Your task to perform on an android device: make emails show in primary in the gmail app Image 0: 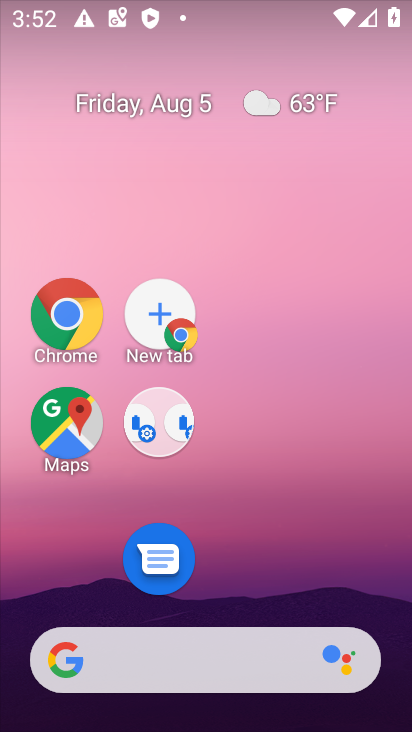
Step 0: click (313, 276)
Your task to perform on an android device: make emails show in primary in the gmail app Image 1: 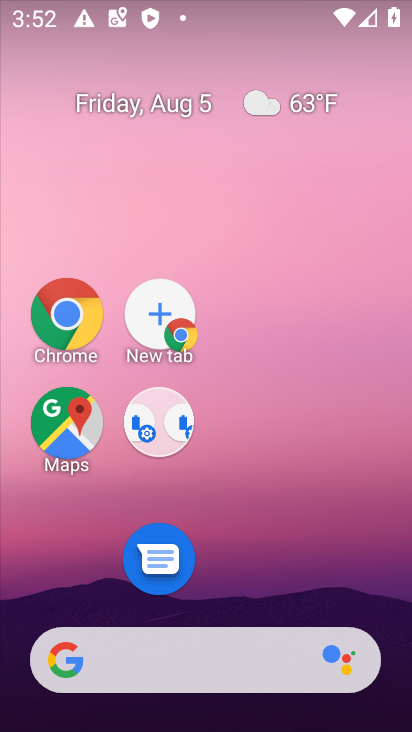
Step 1: click (209, 87)
Your task to perform on an android device: make emails show in primary in the gmail app Image 2: 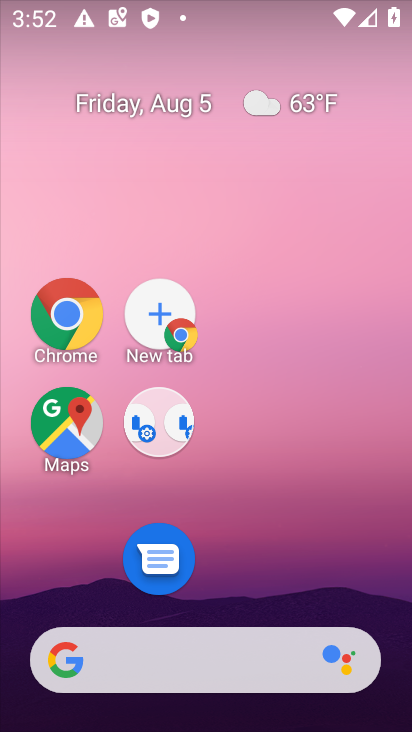
Step 2: drag from (203, 84) to (154, 18)
Your task to perform on an android device: make emails show in primary in the gmail app Image 3: 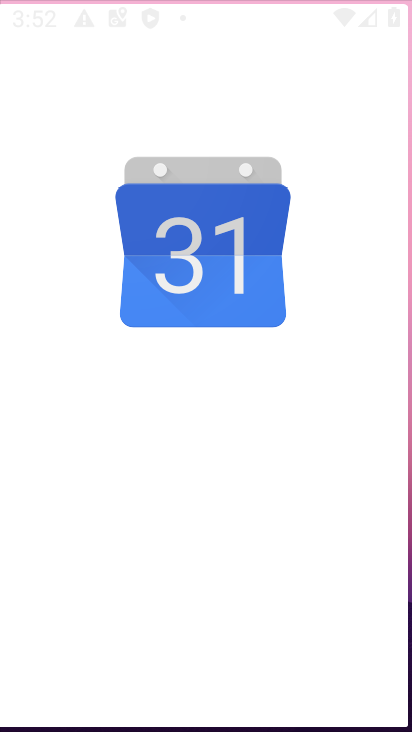
Step 3: drag from (253, 409) to (160, 120)
Your task to perform on an android device: make emails show in primary in the gmail app Image 4: 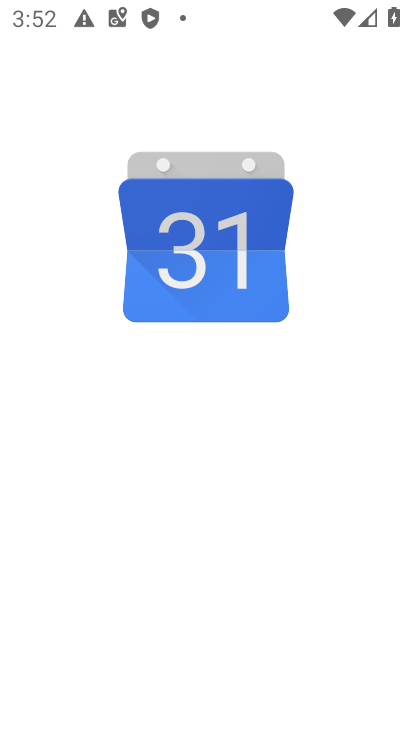
Step 4: click (156, 120)
Your task to perform on an android device: make emails show in primary in the gmail app Image 5: 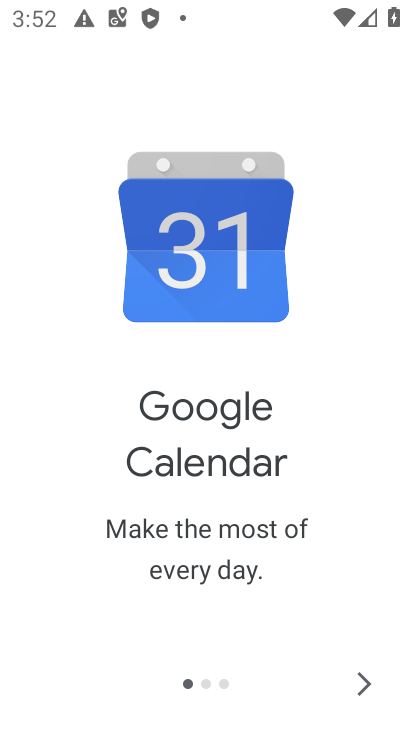
Step 5: press back button
Your task to perform on an android device: make emails show in primary in the gmail app Image 6: 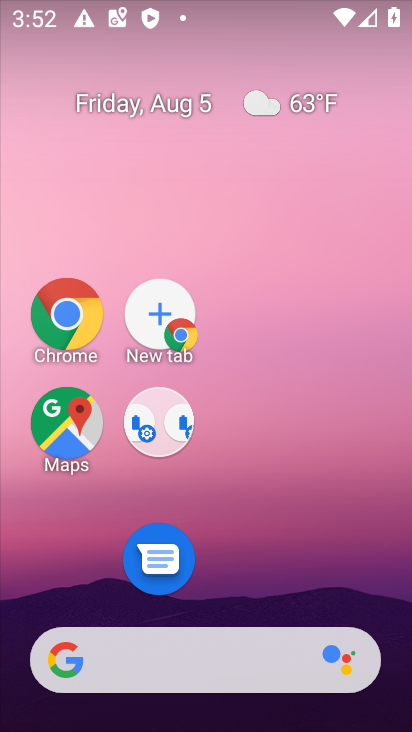
Step 6: drag from (247, 522) to (228, 64)
Your task to perform on an android device: make emails show in primary in the gmail app Image 7: 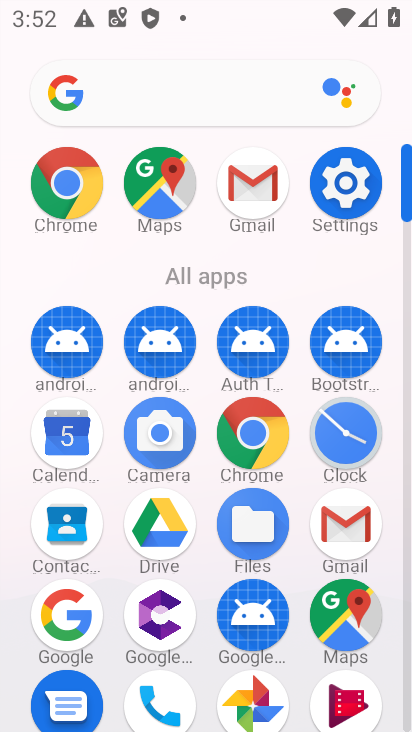
Step 7: click (256, 79)
Your task to perform on an android device: make emails show in primary in the gmail app Image 8: 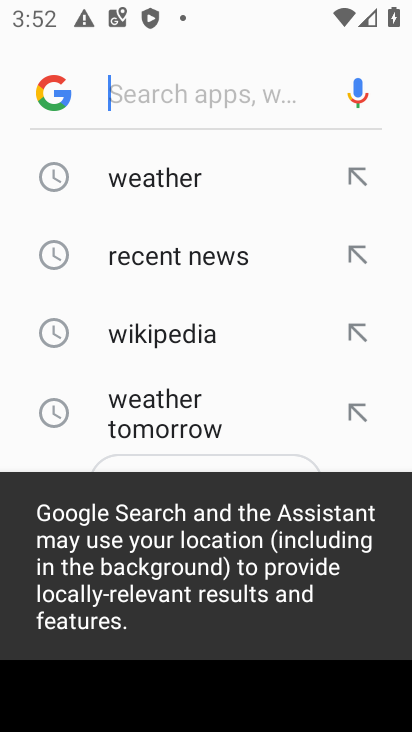
Step 8: press back button
Your task to perform on an android device: make emails show in primary in the gmail app Image 9: 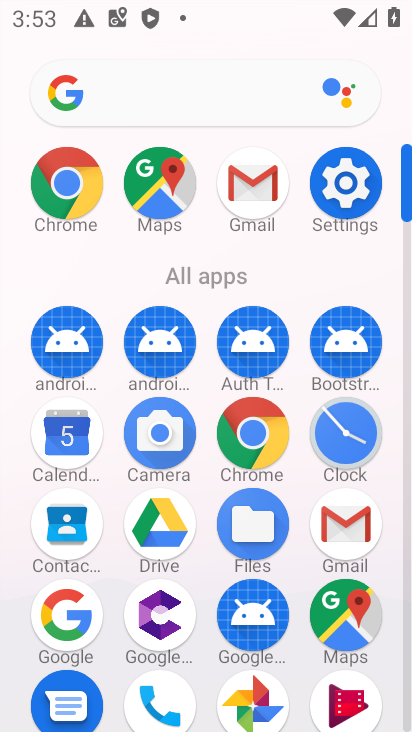
Step 9: click (347, 528)
Your task to perform on an android device: make emails show in primary in the gmail app Image 10: 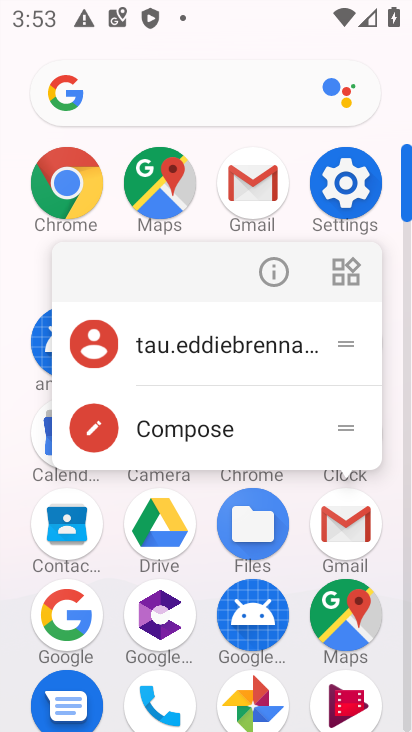
Step 10: click (162, 426)
Your task to perform on an android device: make emails show in primary in the gmail app Image 11: 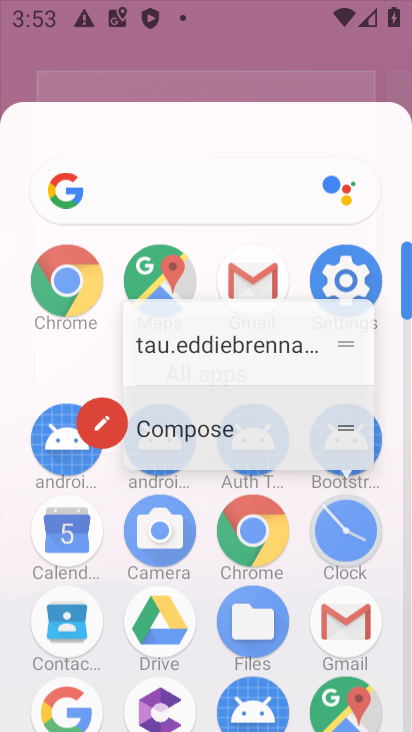
Step 11: click (162, 426)
Your task to perform on an android device: make emails show in primary in the gmail app Image 12: 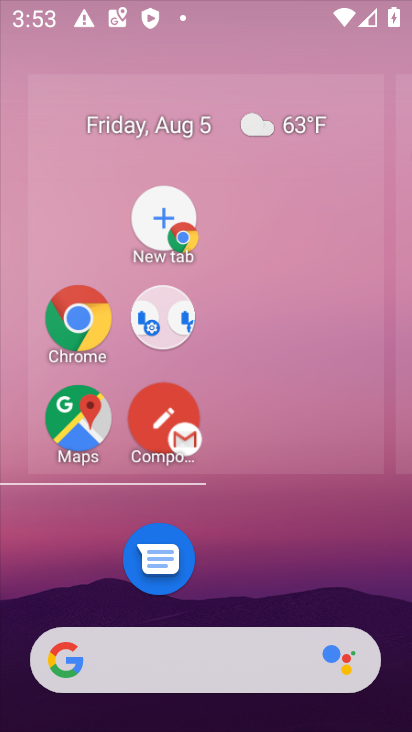
Step 12: click (162, 427)
Your task to perform on an android device: make emails show in primary in the gmail app Image 13: 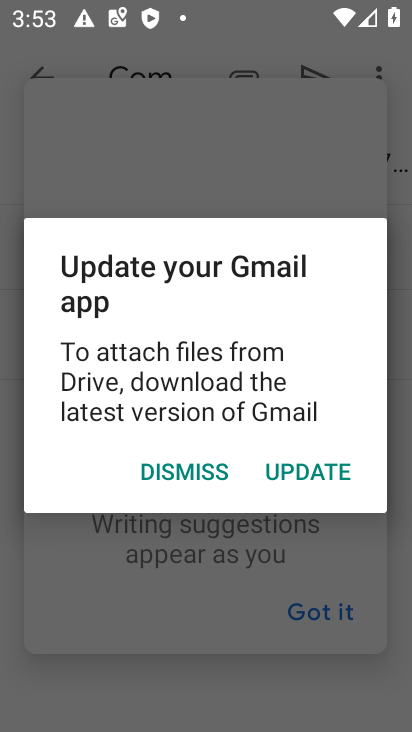
Step 13: click (185, 475)
Your task to perform on an android device: make emails show in primary in the gmail app Image 14: 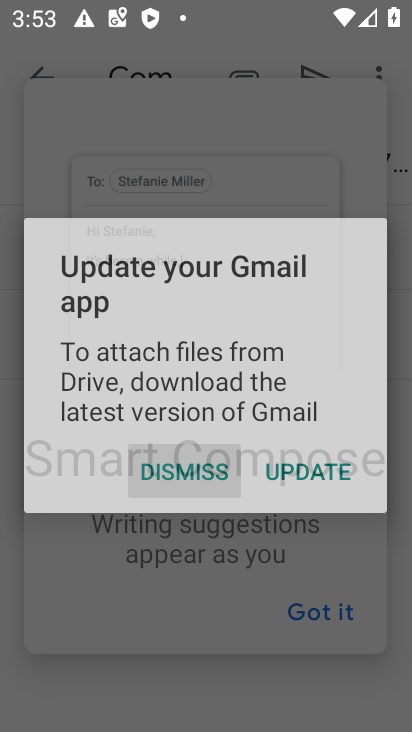
Step 14: click (183, 477)
Your task to perform on an android device: make emails show in primary in the gmail app Image 15: 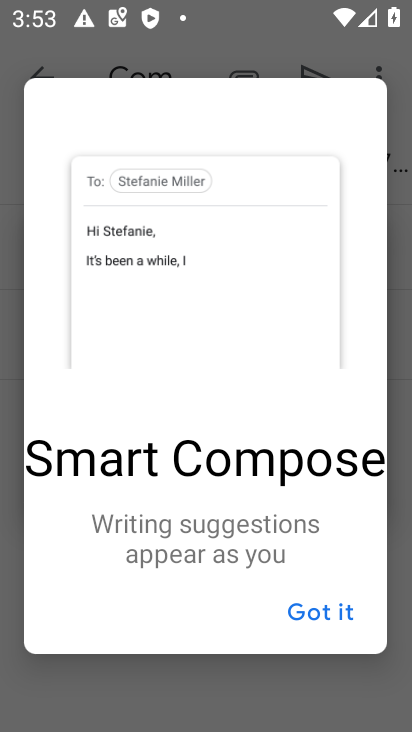
Step 15: click (185, 477)
Your task to perform on an android device: make emails show in primary in the gmail app Image 16: 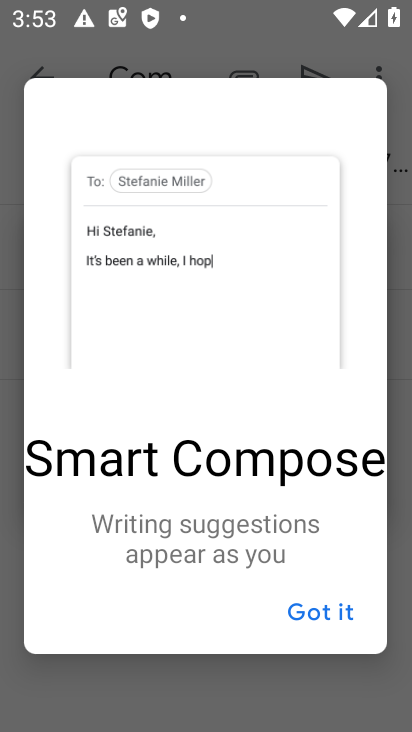
Step 16: click (216, 470)
Your task to perform on an android device: make emails show in primary in the gmail app Image 17: 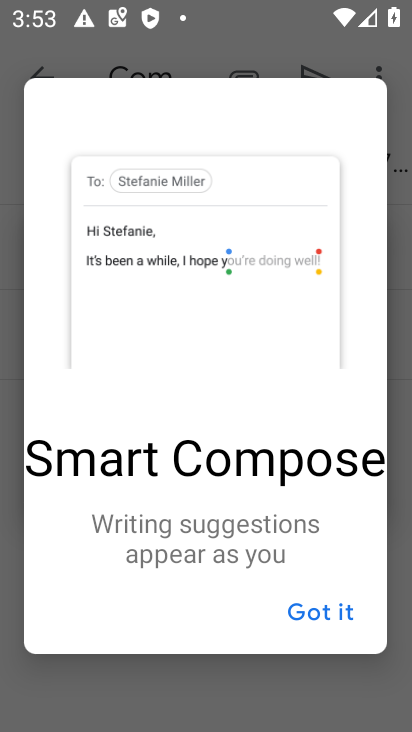
Step 17: click (292, 617)
Your task to perform on an android device: make emails show in primary in the gmail app Image 18: 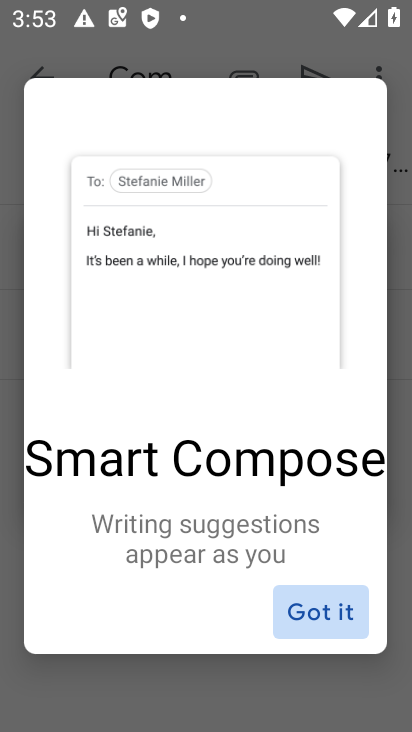
Step 18: click (325, 614)
Your task to perform on an android device: make emails show in primary in the gmail app Image 19: 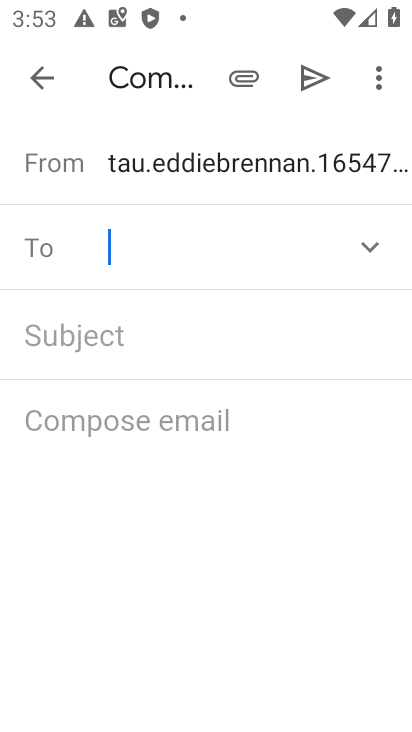
Step 19: click (41, 74)
Your task to perform on an android device: make emails show in primary in the gmail app Image 20: 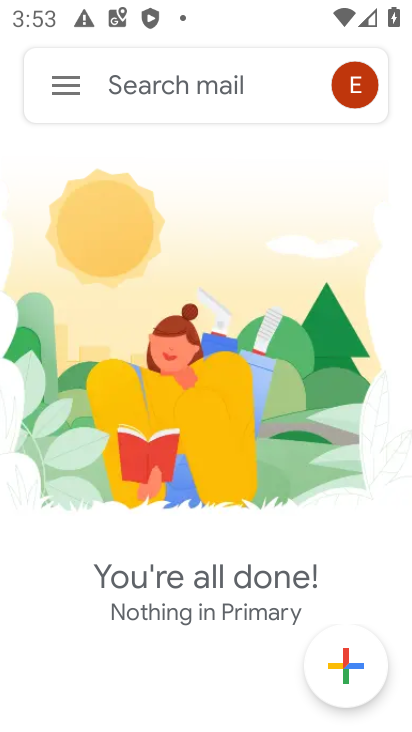
Step 20: click (56, 89)
Your task to perform on an android device: make emails show in primary in the gmail app Image 21: 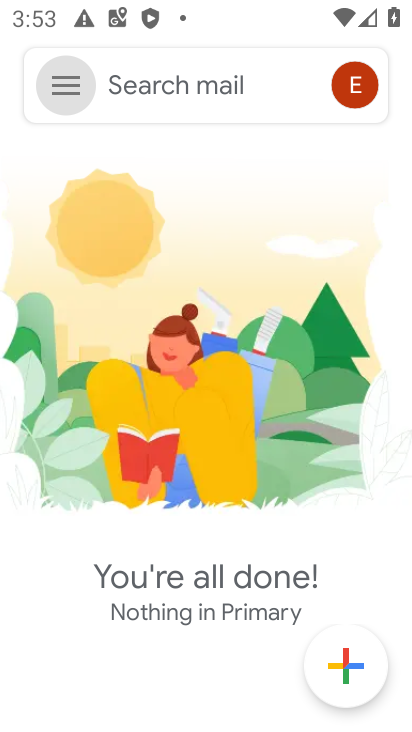
Step 21: click (53, 85)
Your task to perform on an android device: make emails show in primary in the gmail app Image 22: 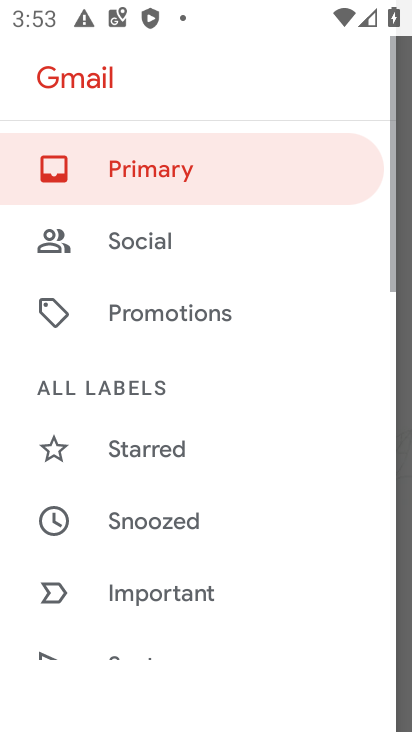
Step 22: drag from (206, 573) to (163, 153)
Your task to perform on an android device: make emails show in primary in the gmail app Image 23: 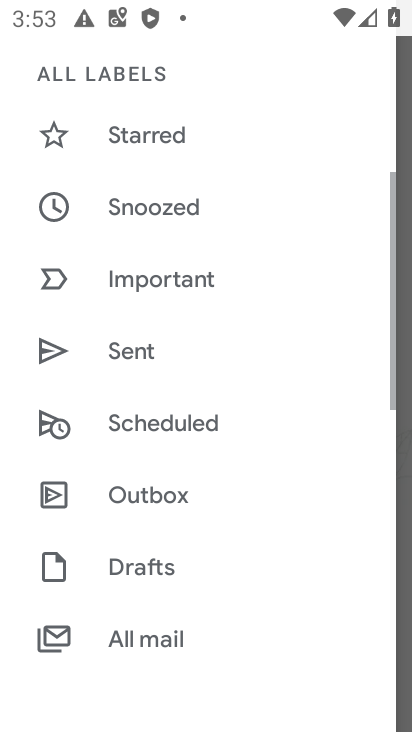
Step 23: drag from (172, 519) to (189, 81)
Your task to perform on an android device: make emails show in primary in the gmail app Image 24: 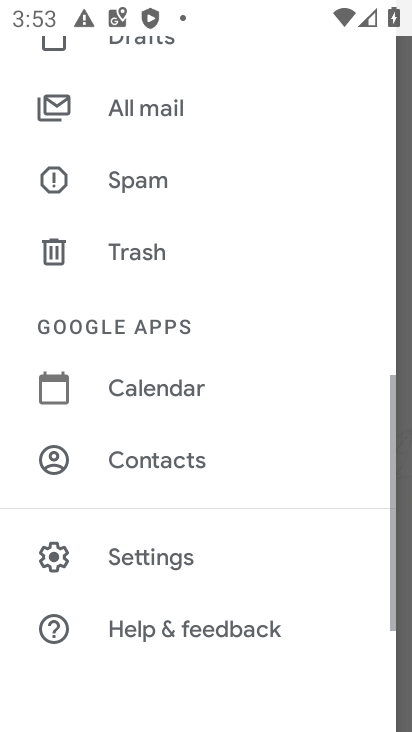
Step 24: drag from (189, 428) to (189, 126)
Your task to perform on an android device: make emails show in primary in the gmail app Image 25: 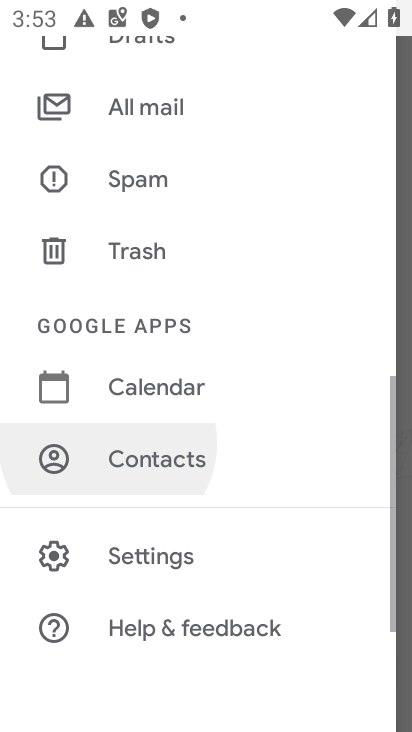
Step 25: drag from (188, 510) to (207, 120)
Your task to perform on an android device: make emails show in primary in the gmail app Image 26: 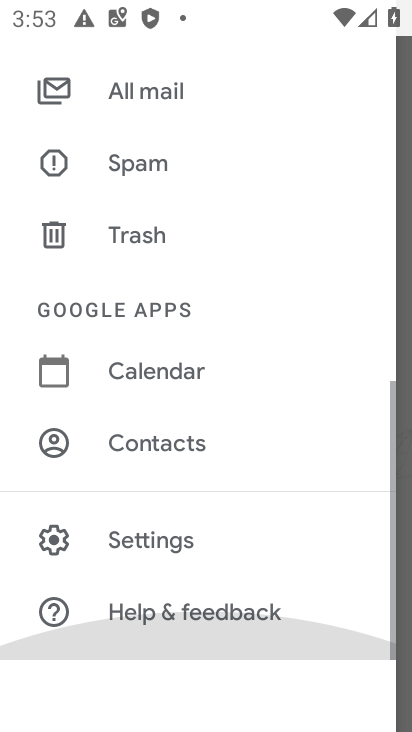
Step 26: drag from (198, 431) to (182, 186)
Your task to perform on an android device: make emails show in primary in the gmail app Image 27: 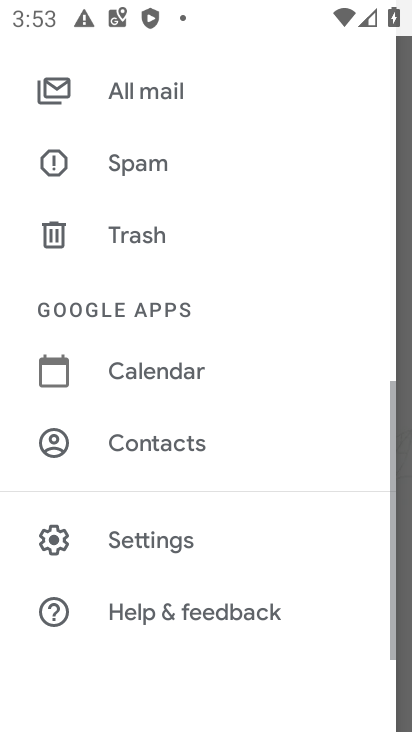
Step 27: click (153, 541)
Your task to perform on an android device: make emails show in primary in the gmail app Image 28: 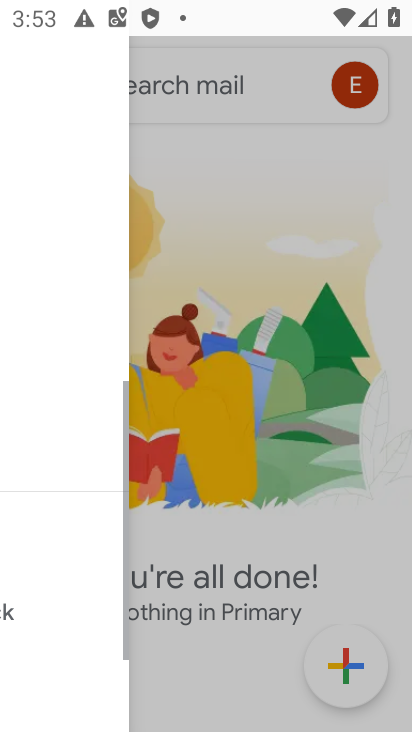
Step 28: click (148, 546)
Your task to perform on an android device: make emails show in primary in the gmail app Image 29: 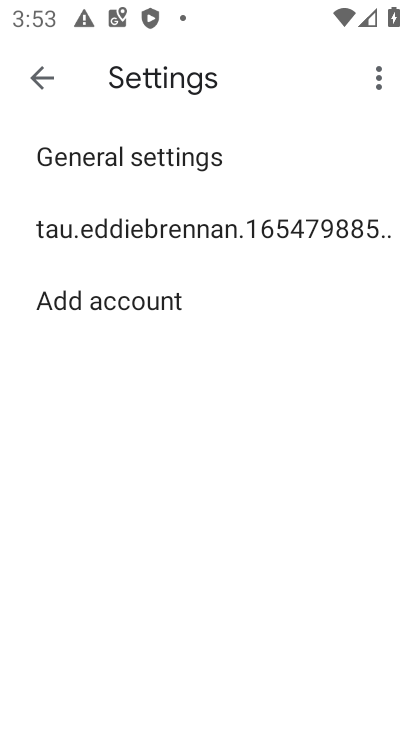
Step 29: click (125, 220)
Your task to perform on an android device: make emails show in primary in the gmail app Image 30: 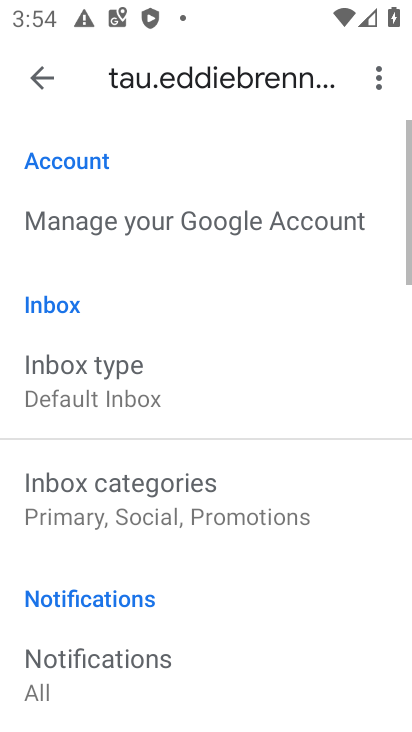
Step 30: click (135, 225)
Your task to perform on an android device: make emails show in primary in the gmail app Image 31: 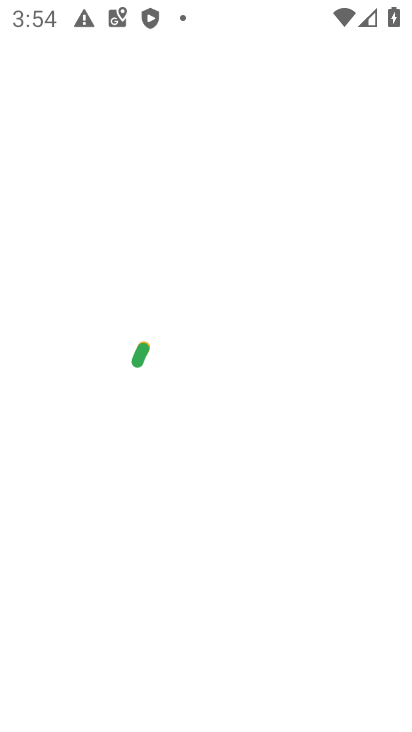
Step 31: click (115, 196)
Your task to perform on an android device: make emails show in primary in the gmail app Image 32: 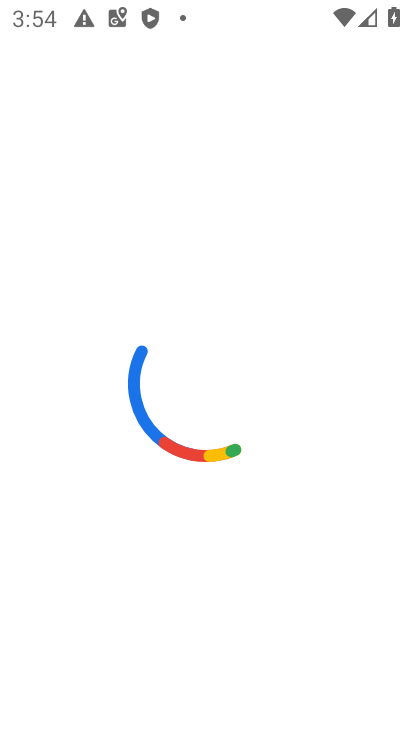
Step 32: click (115, 196)
Your task to perform on an android device: make emails show in primary in the gmail app Image 33: 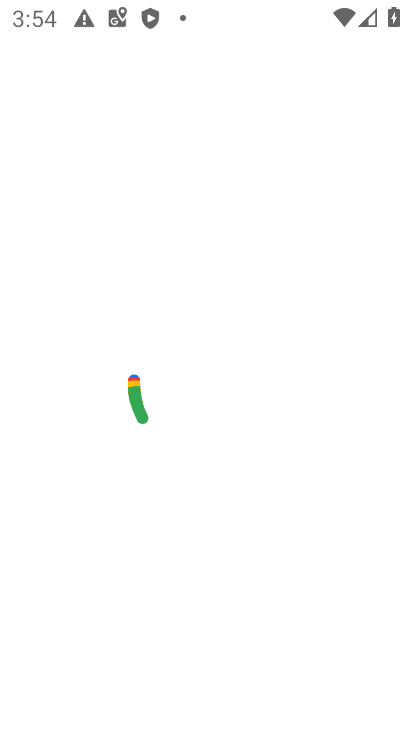
Step 33: task complete